Your task to perform on an android device: Go to eBay Image 0: 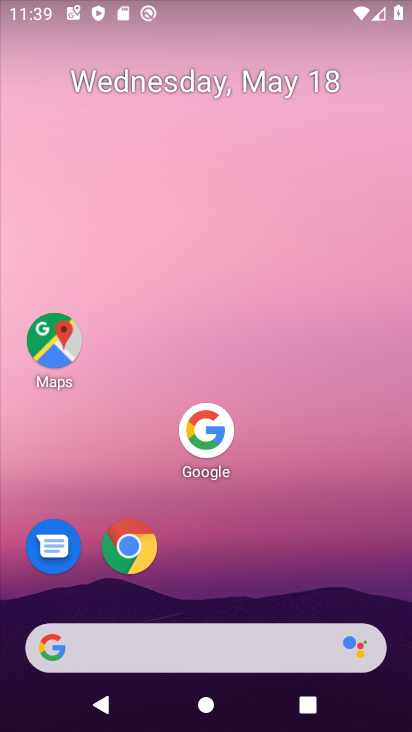
Step 0: click (217, 435)
Your task to perform on an android device: Go to eBay Image 1: 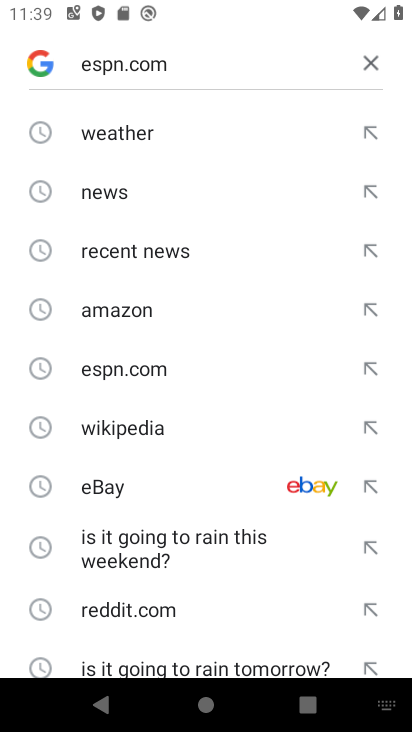
Step 1: click (166, 479)
Your task to perform on an android device: Go to eBay Image 2: 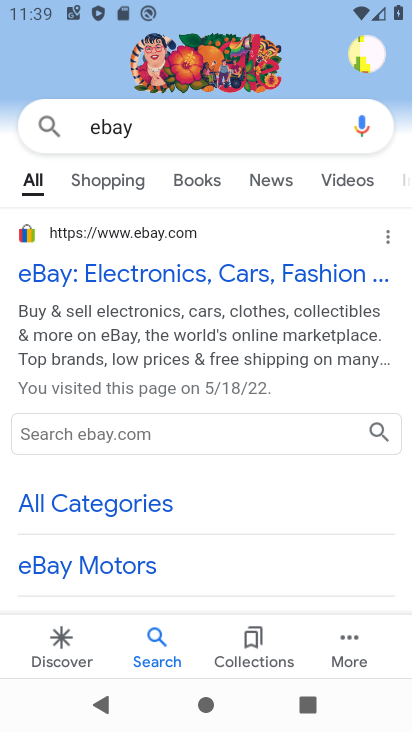
Step 2: task complete